Your task to perform on an android device: turn on improve location accuracy Image 0: 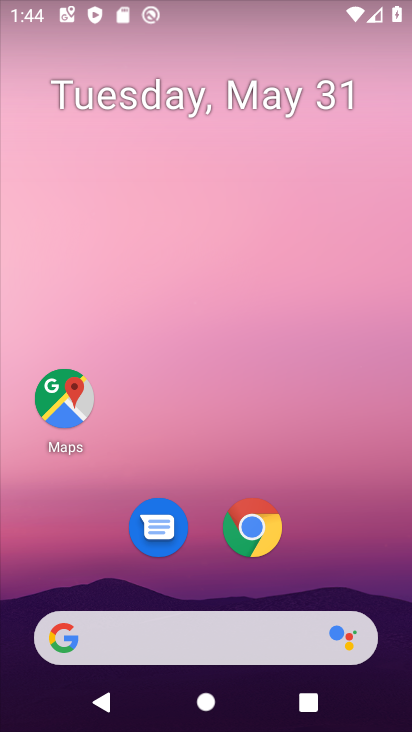
Step 0: drag from (342, 571) to (398, 28)
Your task to perform on an android device: turn on improve location accuracy Image 1: 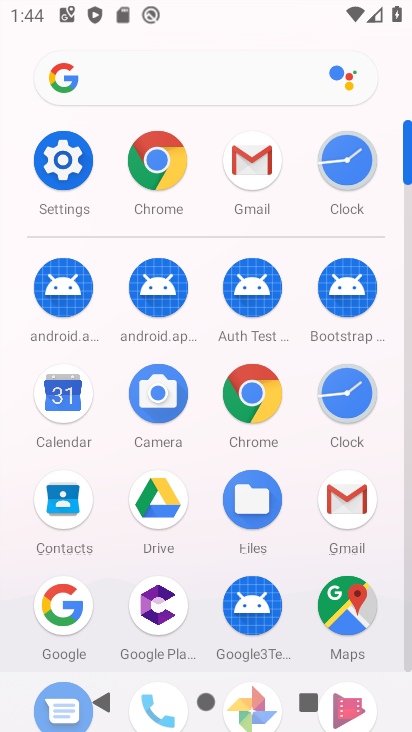
Step 1: click (50, 177)
Your task to perform on an android device: turn on improve location accuracy Image 2: 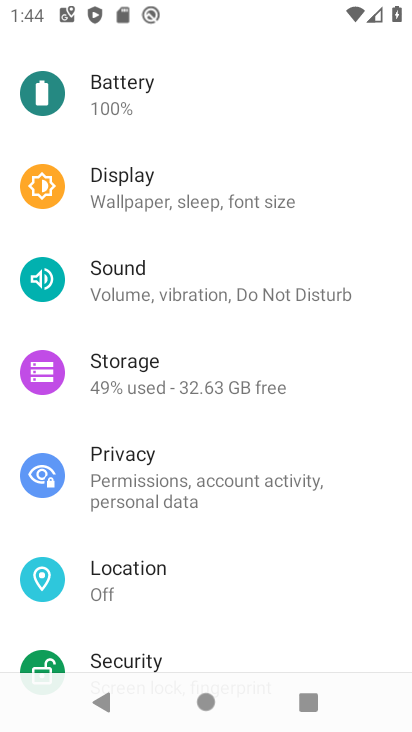
Step 2: click (146, 578)
Your task to perform on an android device: turn on improve location accuracy Image 3: 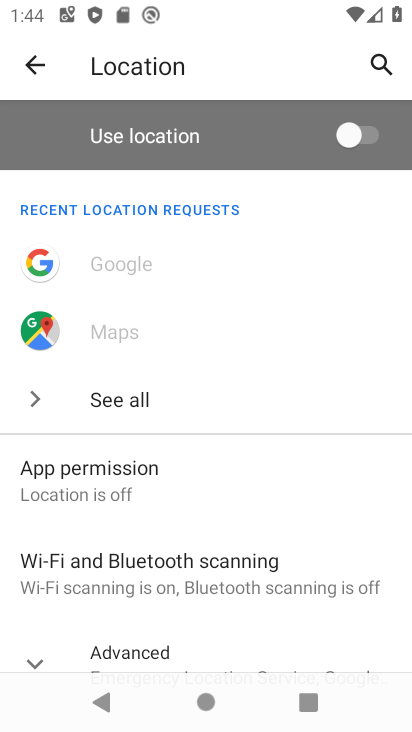
Step 3: drag from (151, 586) to (208, 219)
Your task to perform on an android device: turn on improve location accuracy Image 4: 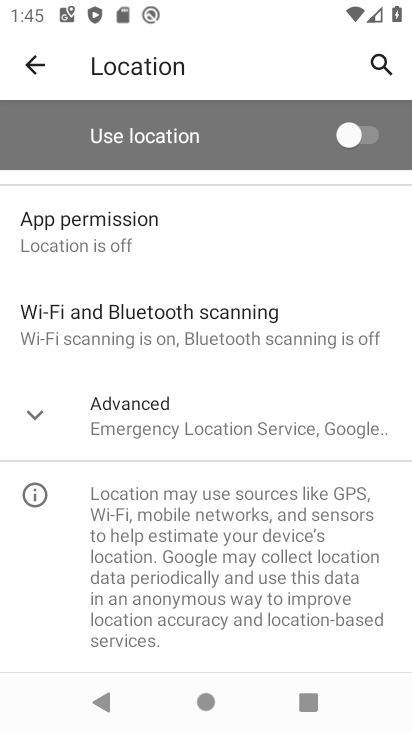
Step 4: drag from (205, 568) to (257, 242)
Your task to perform on an android device: turn on improve location accuracy Image 5: 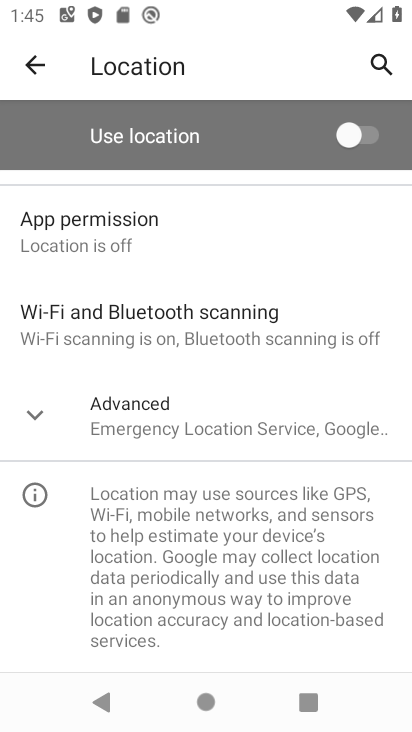
Step 5: click (137, 403)
Your task to perform on an android device: turn on improve location accuracy Image 6: 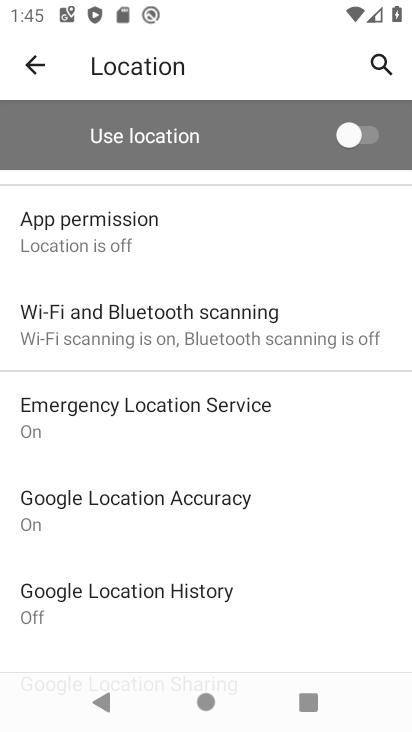
Step 6: drag from (184, 576) to (192, 250)
Your task to perform on an android device: turn on improve location accuracy Image 7: 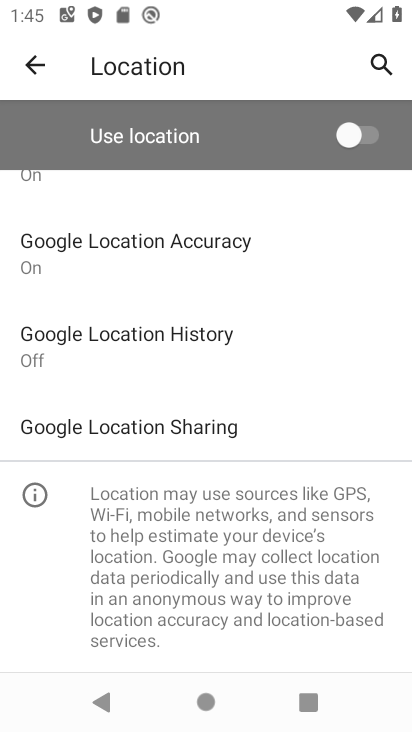
Step 7: click (154, 251)
Your task to perform on an android device: turn on improve location accuracy Image 8: 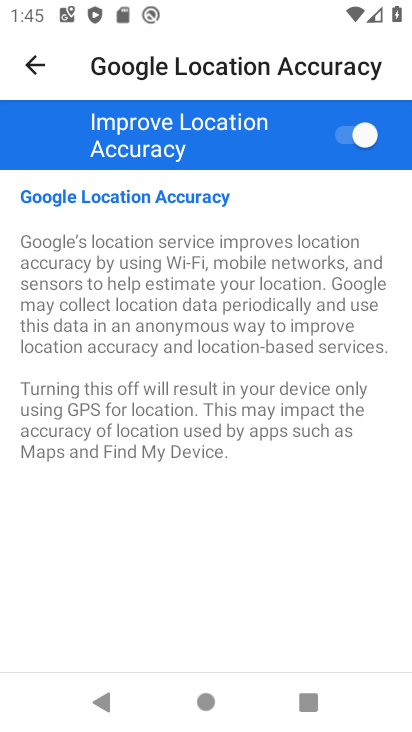
Step 8: task complete